Your task to perform on an android device: turn off airplane mode Image 0: 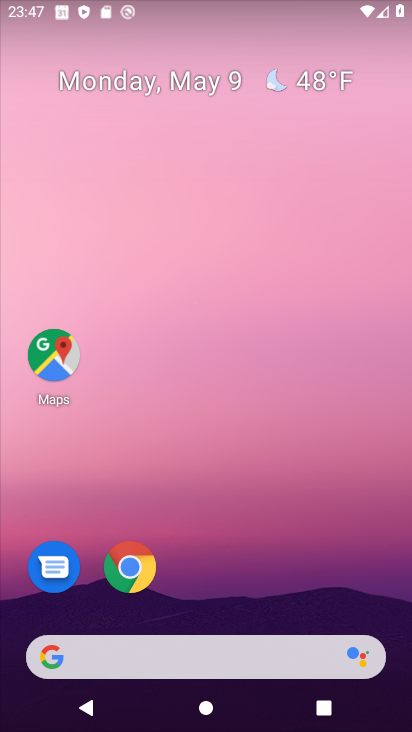
Step 0: drag from (237, 548) to (219, 22)
Your task to perform on an android device: turn off airplane mode Image 1: 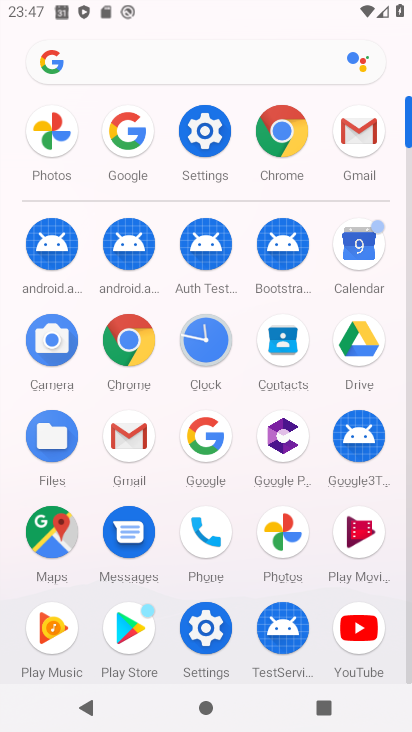
Step 1: click (203, 129)
Your task to perform on an android device: turn off airplane mode Image 2: 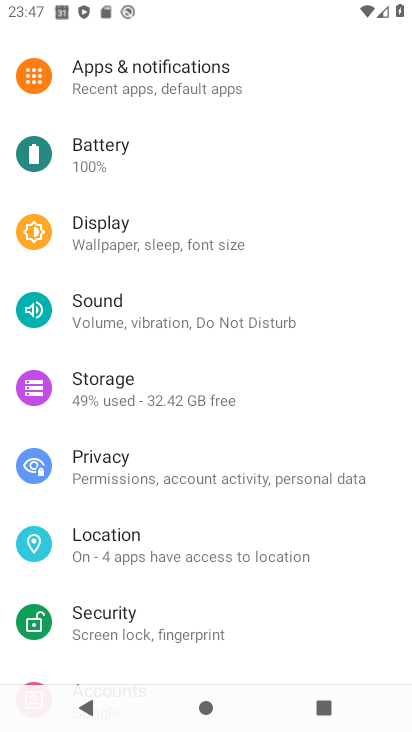
Step 2: drag from (196, 178) to (217, 322)
Your task to perform on an android device: turn off airplane mode Image 3: 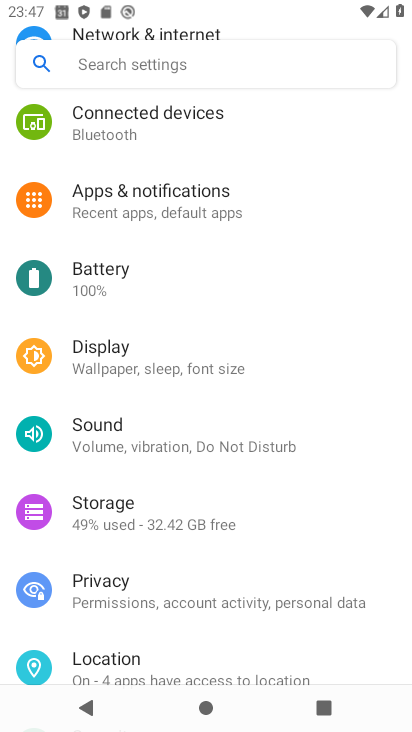
Step 3: drag from (180, 169) to (242, 315)
Your task to perform on an android device: turn off airplane mode Image 4: 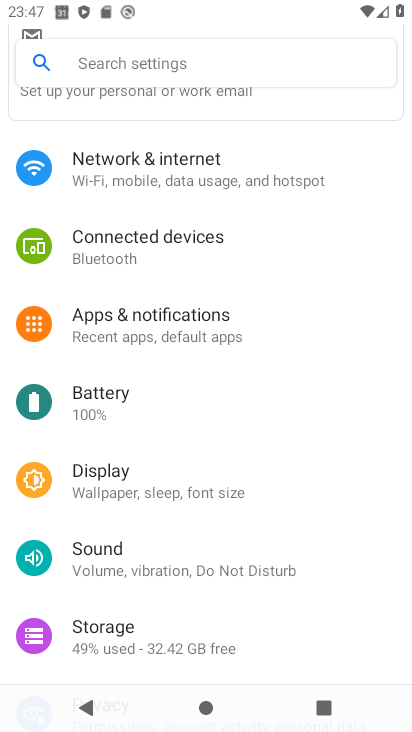
Step 4: click (169, 172)
Your task to perform on an android device: turn off airplane mode Image 5: 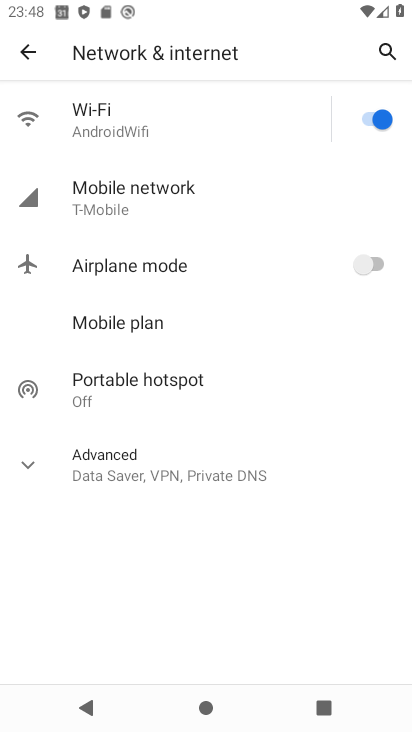
Step 5: task complete